Your task to perform on an android device: Find coffee shops on Maps Image 0: 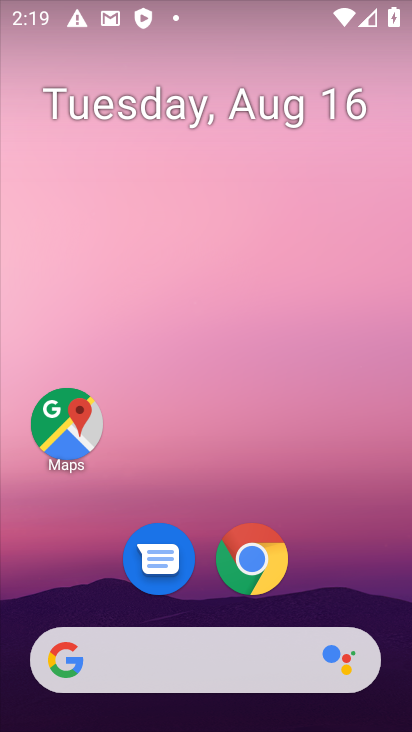
Step 0: click (69, 425)
Your task to perform on an android device: Find coffee shops on Maps Image 1: 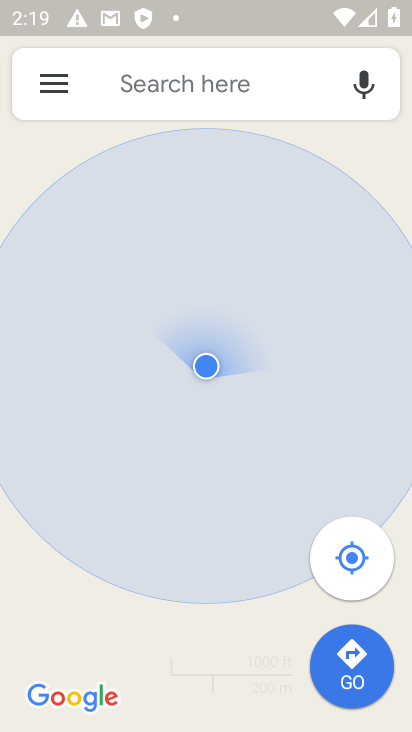
Step 1: click (181, 84)
Your task to perform on an android device: Find coffee shops on Maps Image 2: 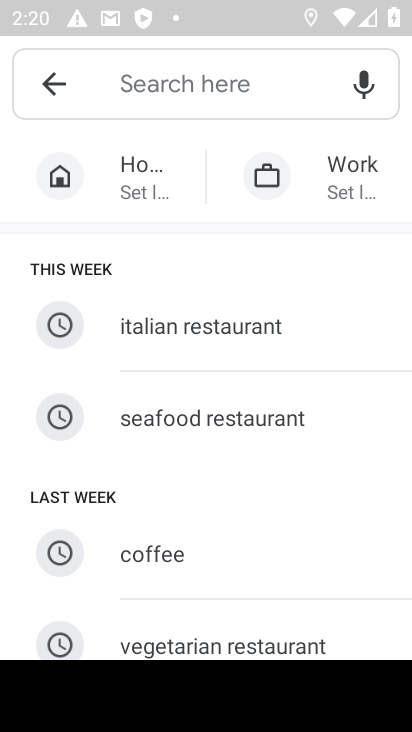
Step 2: type "coffee shops"
Your task to perform on an android device: Find coffee shops on Maps Image 3: 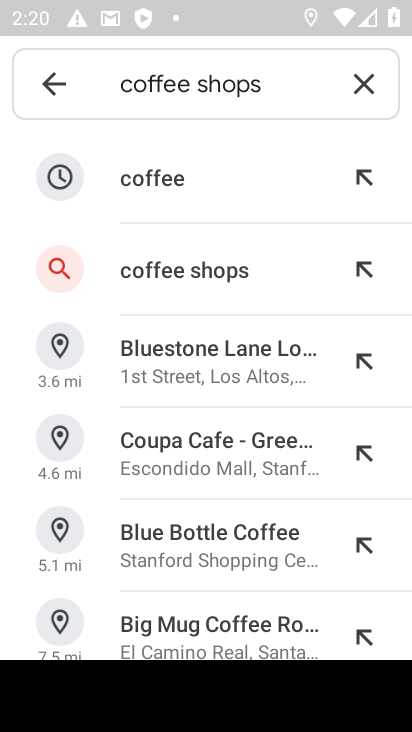
Step 3: click (184, 278)
Your task to perform on an android device: Find coffee shops on Maps Image 4: 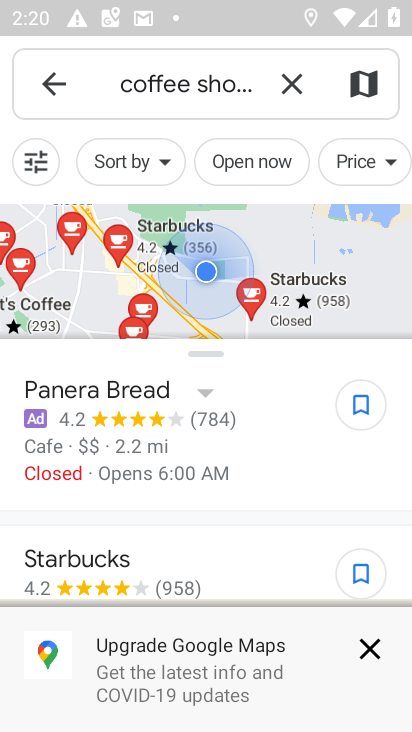
Step 4: task complete